Your task to perform on an android device: See recent photos Image 0: 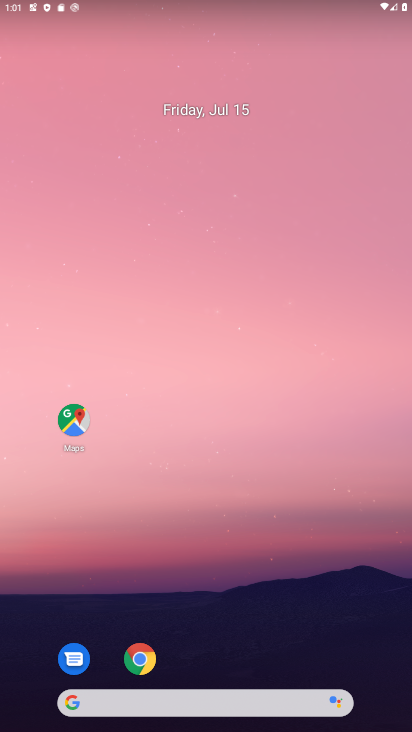
Step 0: drag from (212, 653) to (215, 128)
Your task to perform on an android device: See recent photos Image 1: 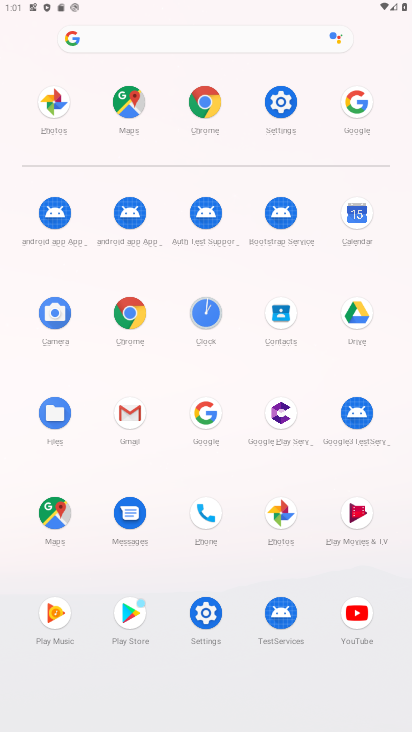
Step 1: click (271, 510)
Your task to perform on an android device: See recent photos Image 2: 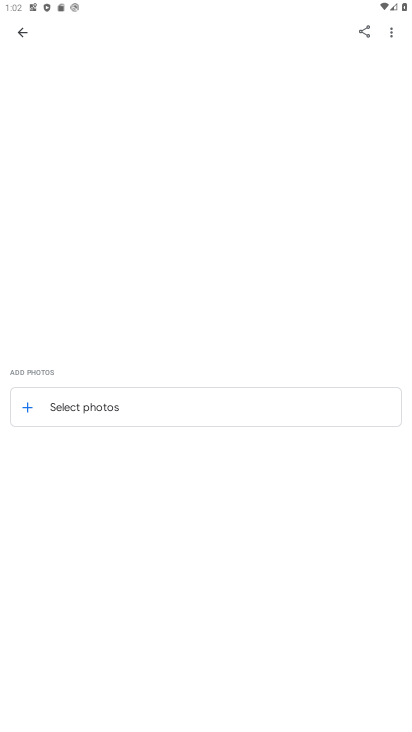
Step 2: task complete